Your task to perform on an android device: find which apps use the phone's location Image 0: 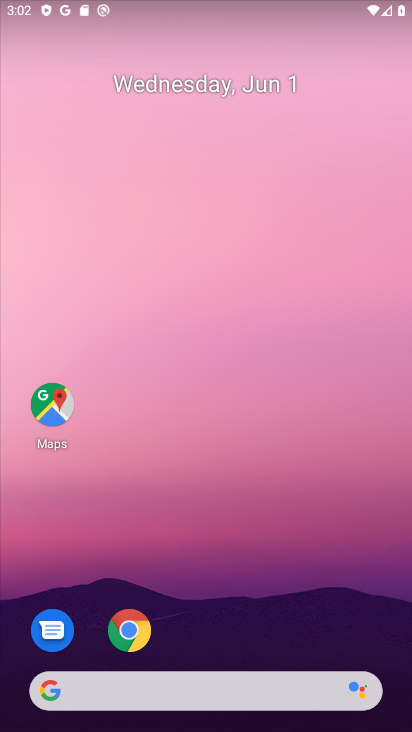
Step 0: drag from (193, 555) to (283, 143)
Your task to perform on an android device: find which apps use the phone's location Image 1: 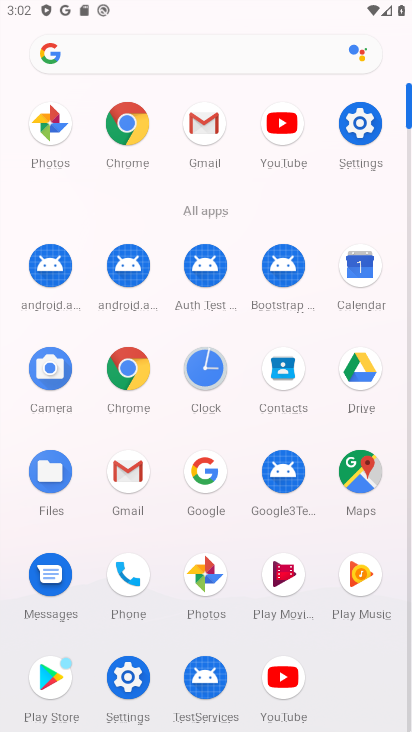
Step 1: click (367, 107)
Your task to perform on an android device: find which apps use the phone's location Image 2: 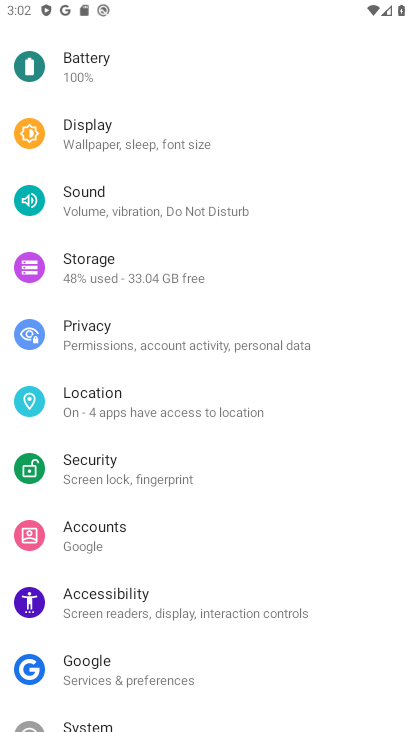
Step 2: click (114, 409)
Your task to perform on an android device: find which apps use the phone's location Image 3: 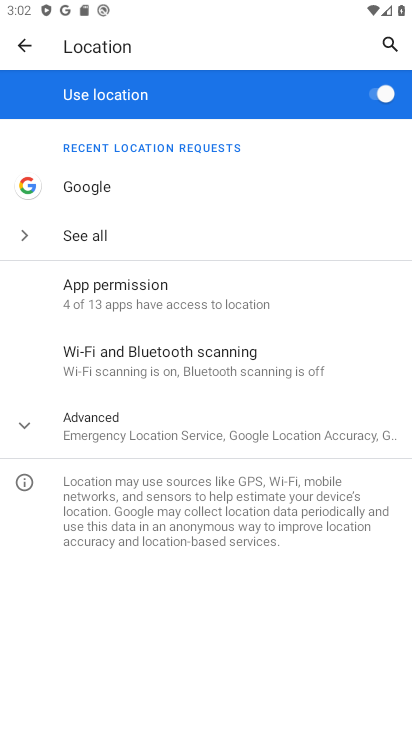
Step 3: click (111, 298)
Your task to perform on an android device: find which apps use the phone's location Image 4: 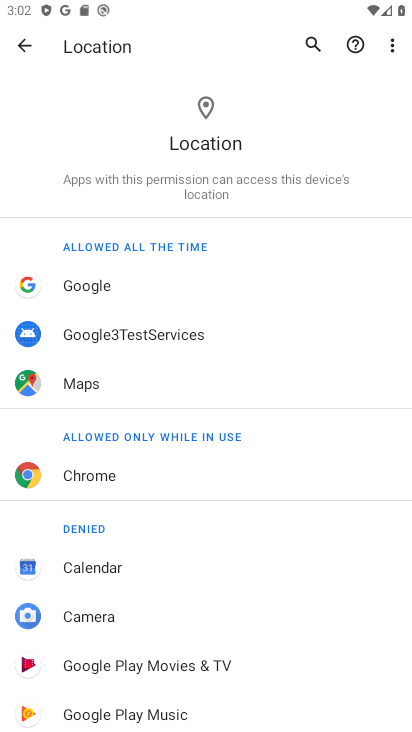
Step 4: task complete